Your task to perform on an android device: Check the settings for the YouTube app Image 0: 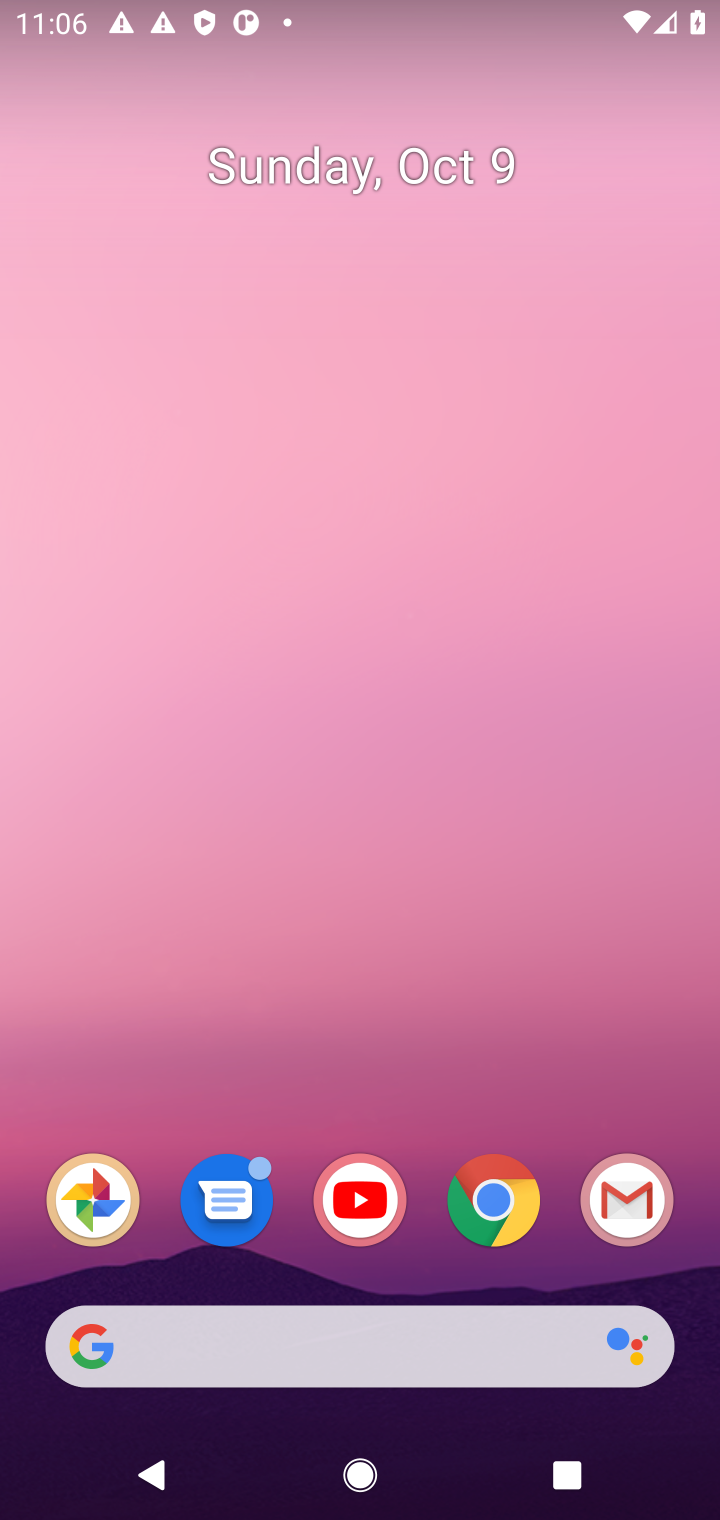
Step 0: click (367, 1206)
Your task to perform on an android device: Check the settings for the YouTube app Image 1: 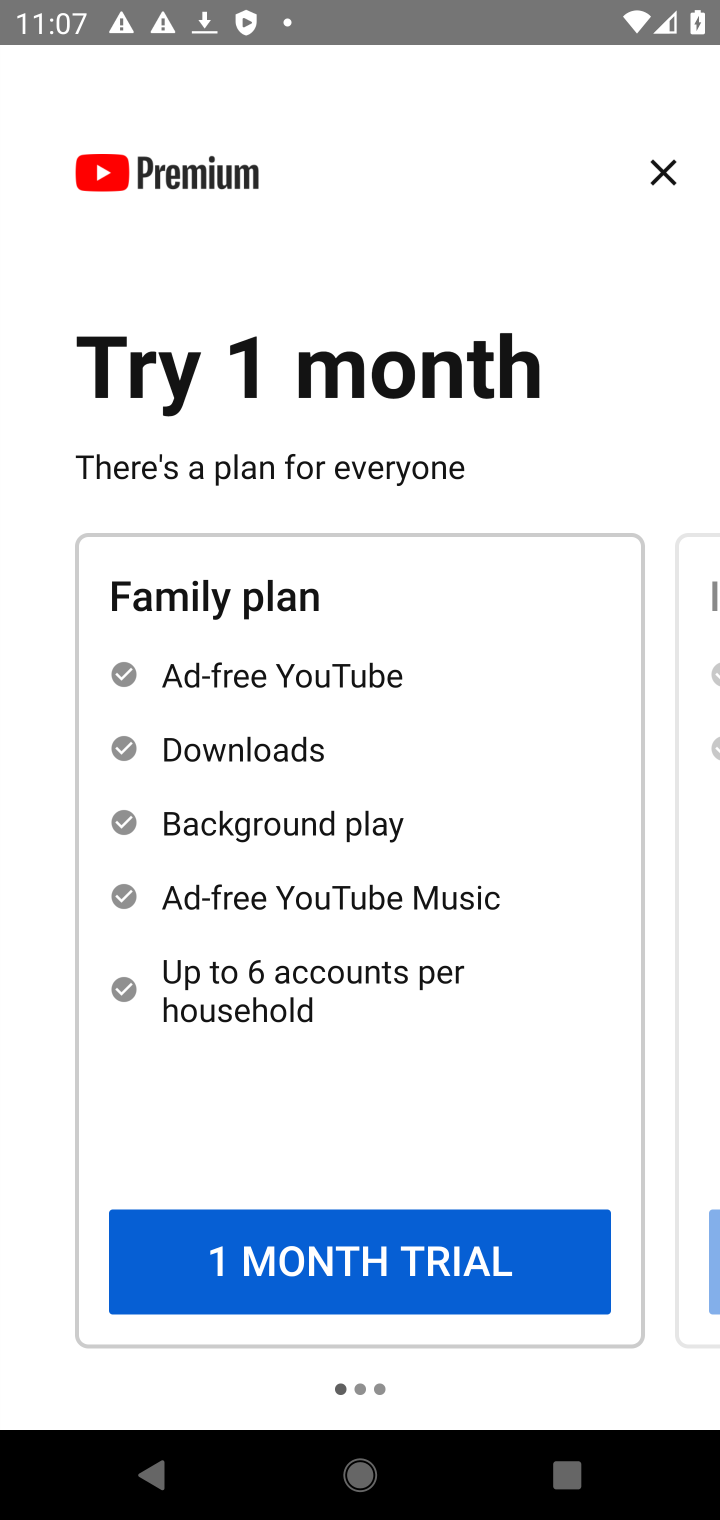
Step 1: click (664, 174)
Your task to perform on an android device: Check the settings for the YouTube app Image 2: 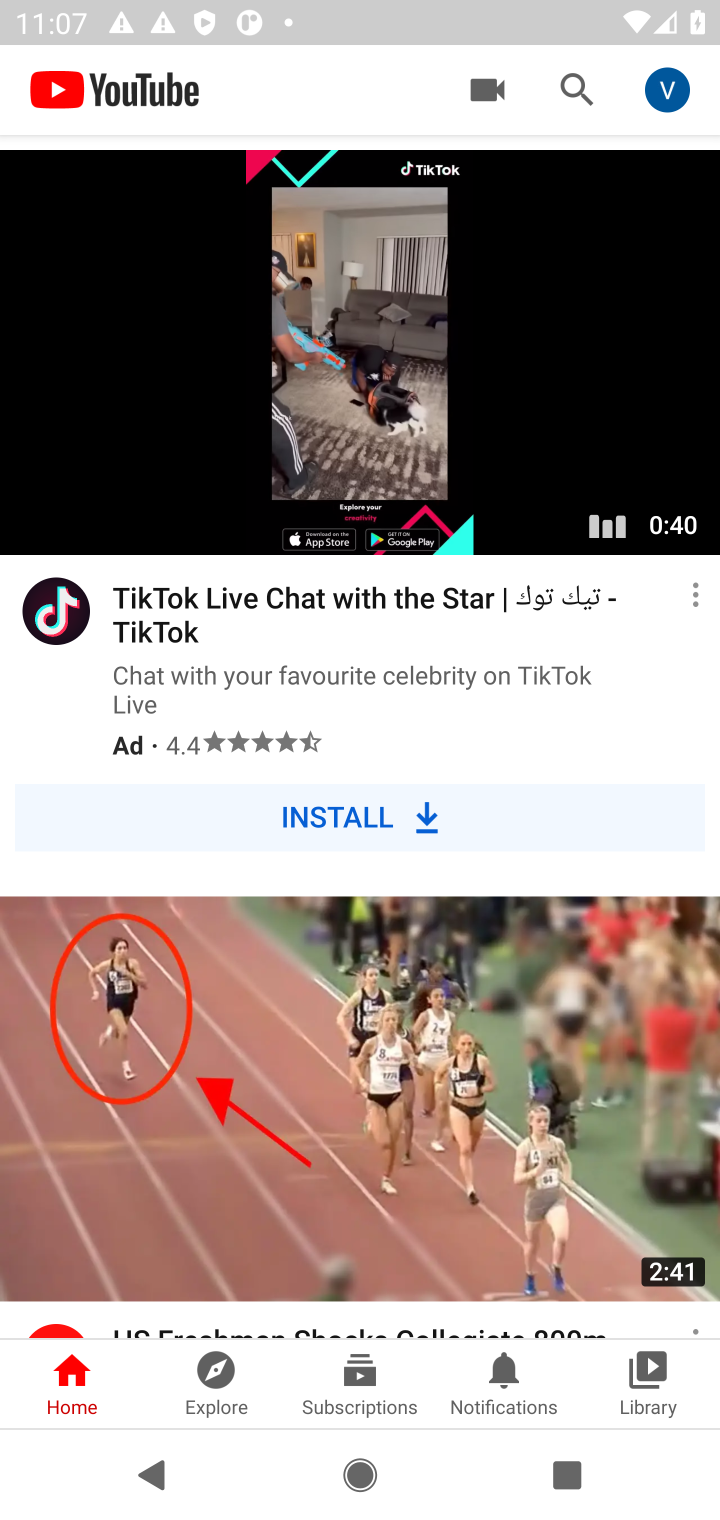
Step 2: click (666, 88)
Your task to perform on an android device: Check the settings for the YouTube app Image 3: 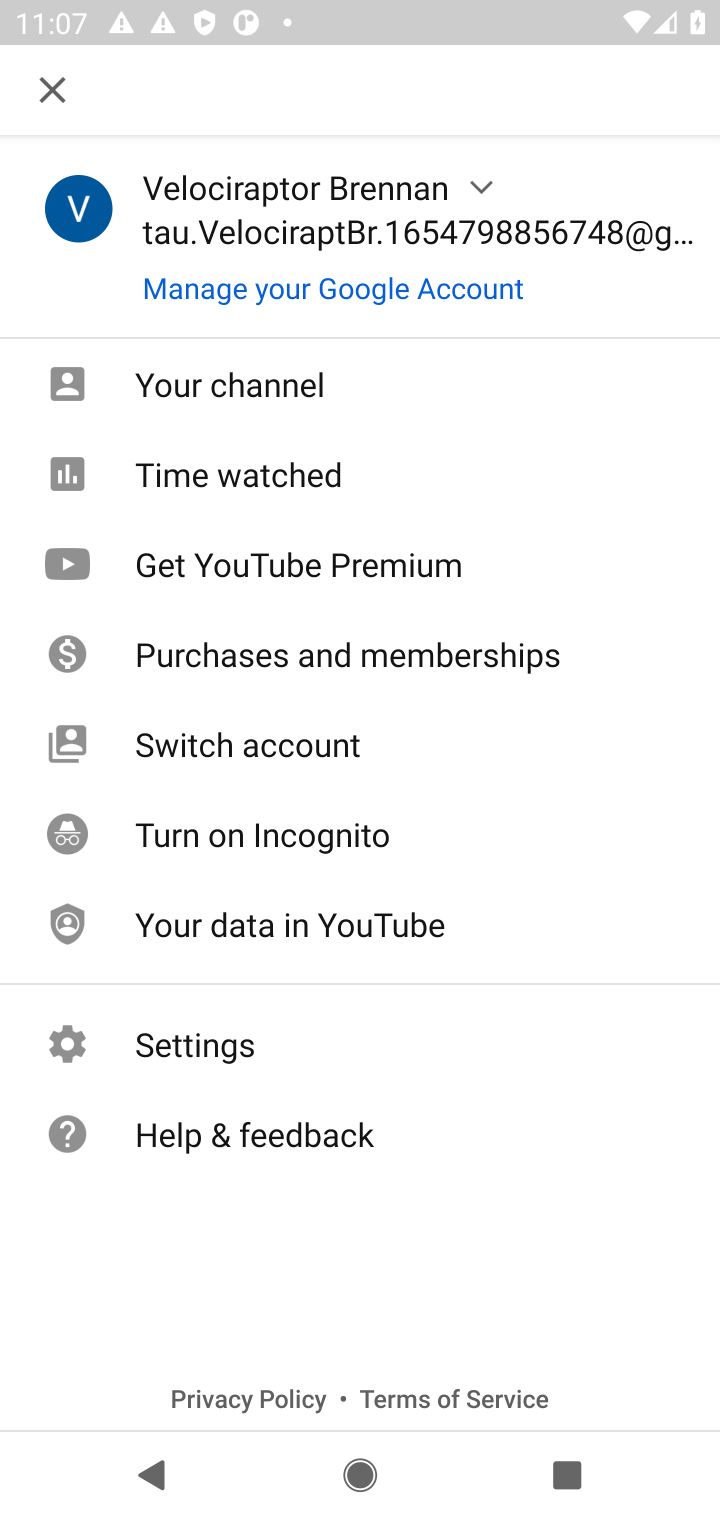
Step 3: click (181, 1046)
Your task to perform on an android device: Check the settings for the YouTube app Image 4: 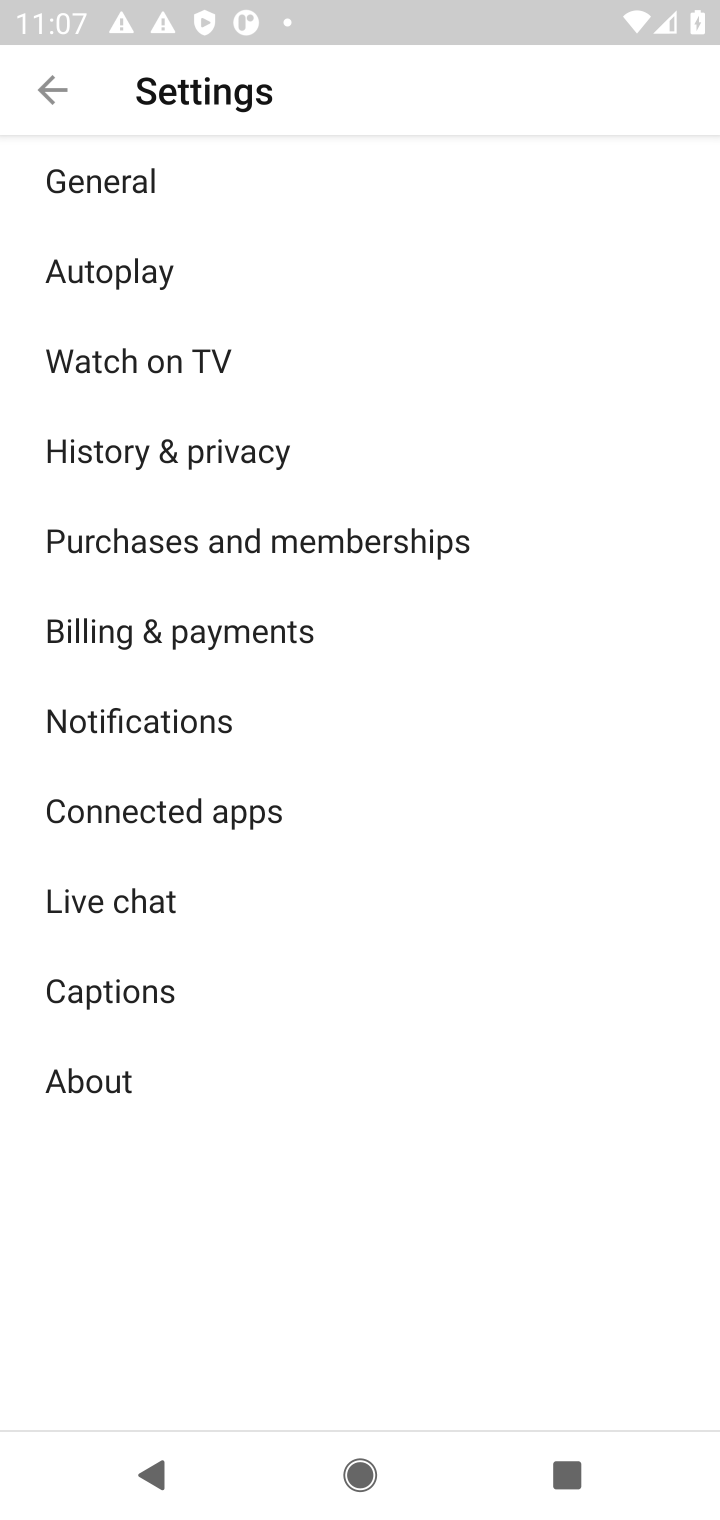
Step 4: task complete